Your task to perform on an android device: Open the calendar app, open the side menu, and click the "Day" option Image 0: 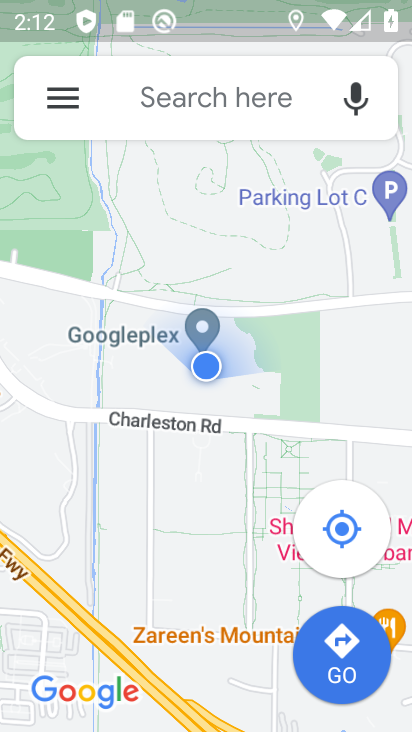
Step 0: press back button
Your task to perform on an android device: Open the calendar app, open the side menu, and click the "Day" option Image 1: 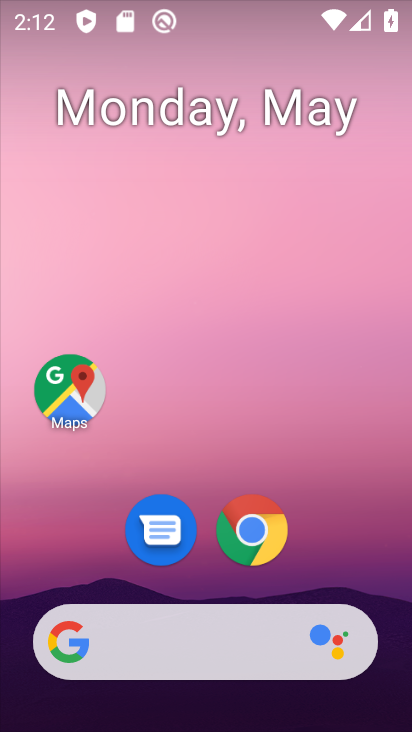
Step 1: press back button
Your task to perform on an android device: Open the calendar app, open the side menu, and click the "Day" option Image 2: 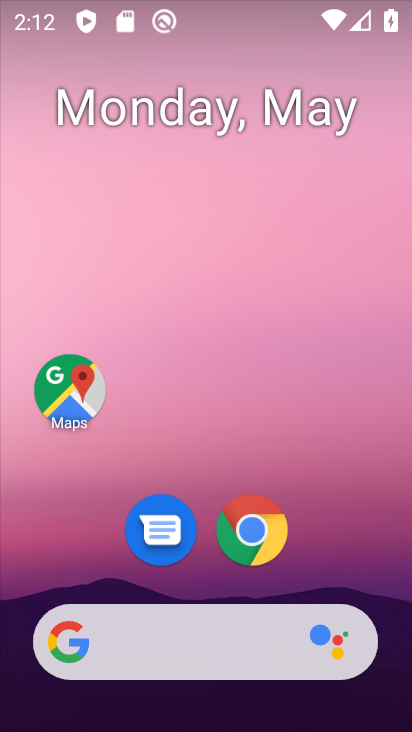
Step 2: drag from (177, 357) to (240, 31)
Your task to perform on an android device: Open the calendar app, open the side menu, and click the "Day" option Image 3: 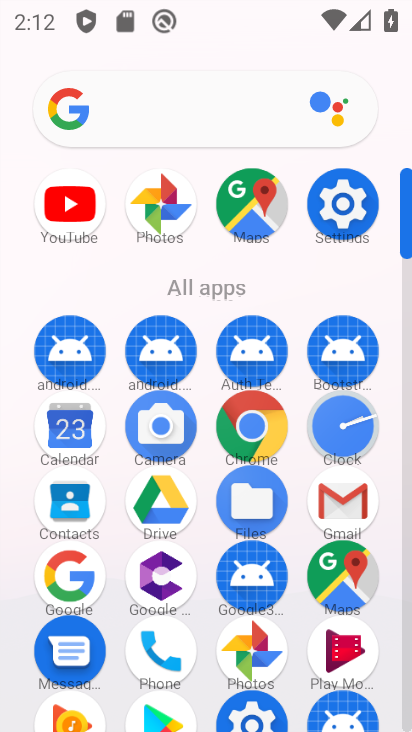
Step 3: click (62, 435)
Your task to perform on an android device: Open the calendar app, open the side menu, and click the "Day" option Image 4: 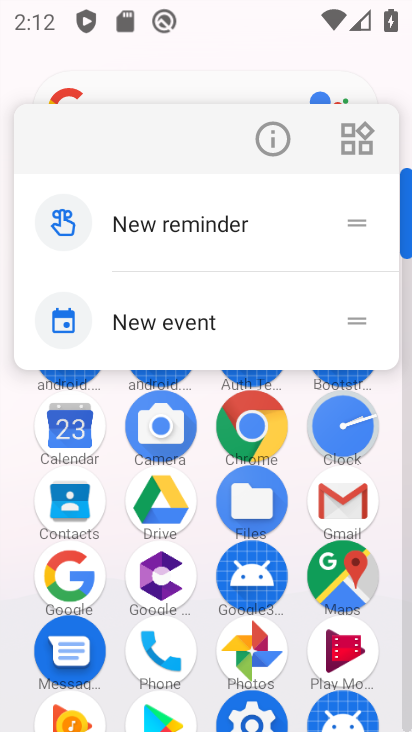
Step 4: click (64, 423)
Your task to perform on an android device: Open the calendar app, open the side menu, and click the "Day" option Image 5: 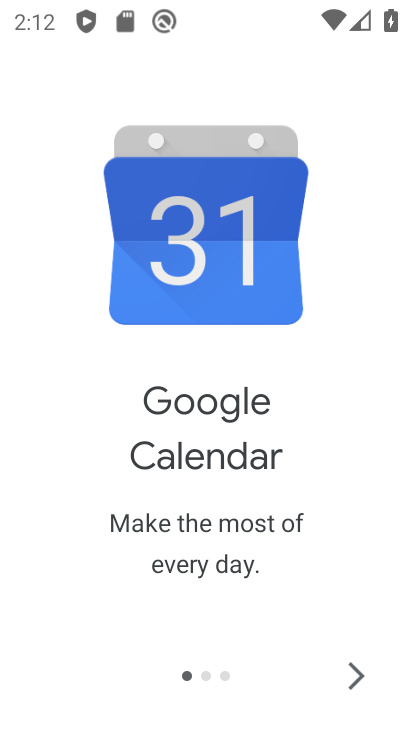
Step 5: click (350, 679)
Your task to perform on an android device: Open the calendar app, open the side menu, and click the "Day" option Image 6: 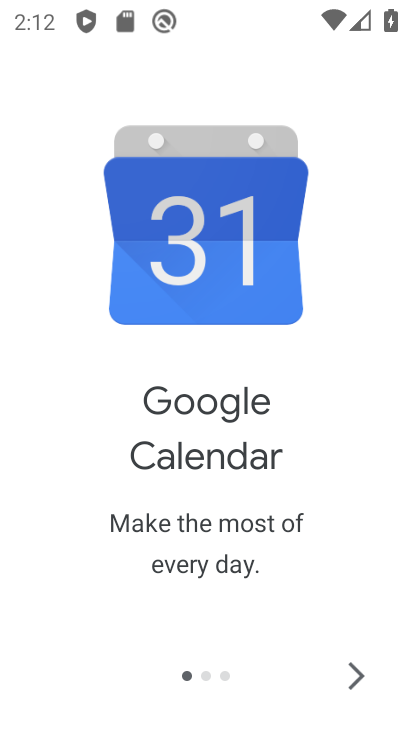
Step 6: click (350, 679)
Your task to perform on an android device: Open the calendar app, open the side menu, and click the "Day" option Image 7: 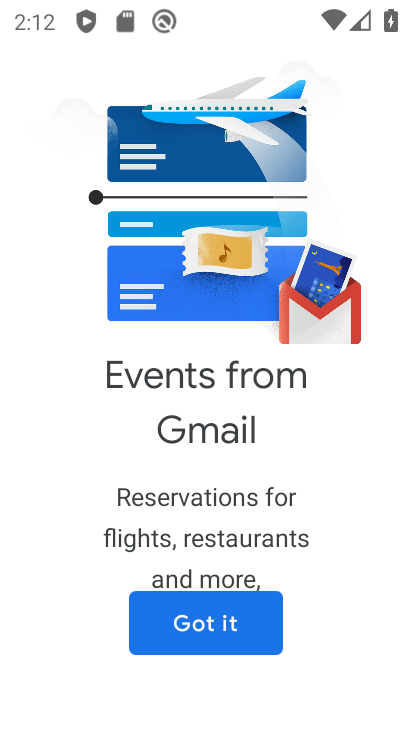
Step 7: click (247, 640)
Your task to perform on an android device: Open the calendar app, open the side menu, and click the "Day" option Image 8: 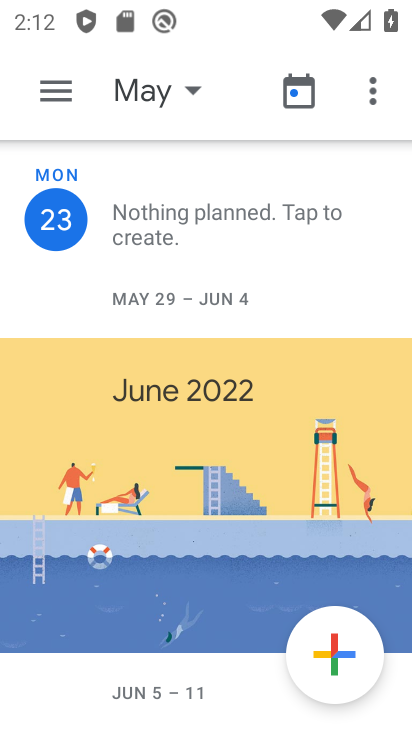
Step 8: click (58, 101)
Your task to perform on an android device: Open the calendar app, open the side menu, and click the "Day" option Image 9: 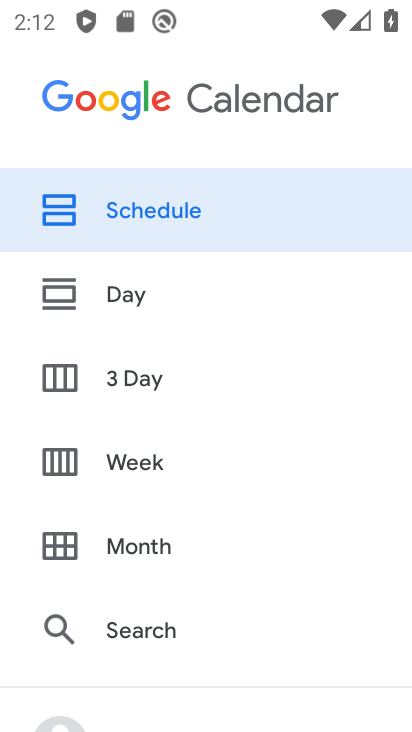
Step 9: click (131, 302)
Your task to perform on an android device: Open the calendar app, open the side menu, and click the "Day" option Image 10: 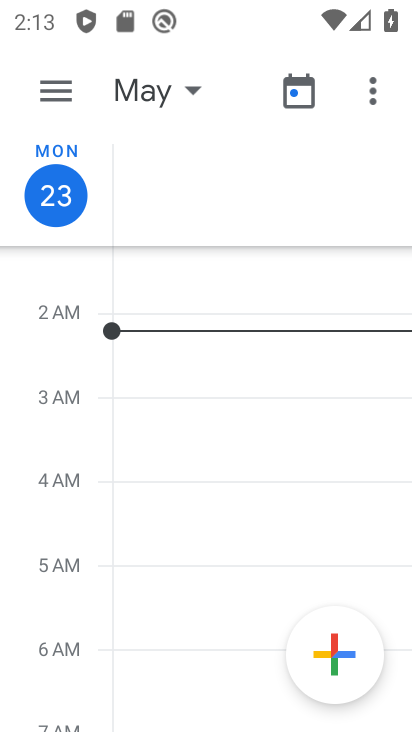
Step 10: click (52, 89)
Your task to perform on an android device: Open the calendar app, open the side menu, and click the "Day" option Image 11: 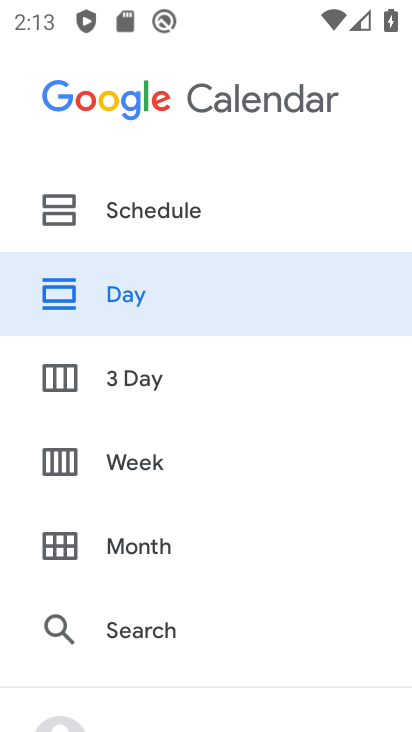
Step 11: click (150, 275)
Your task to perform on an android device: Open the calendar app, open the side menu, and click the "Day" option Image 12: 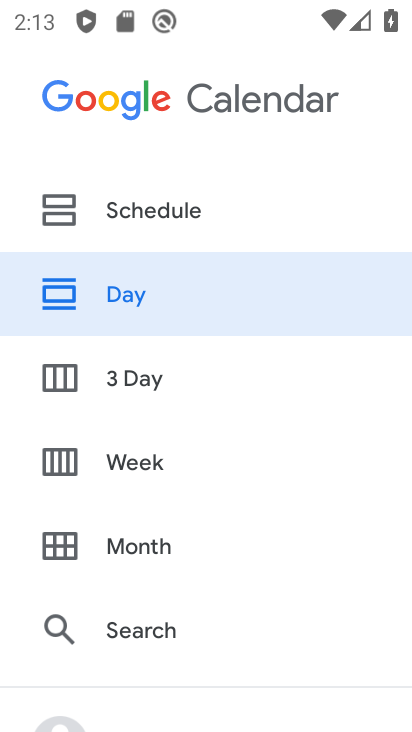
Step 12: task complete